Your task to perform on an android device: visit the assistant section in the google photos Image 0: 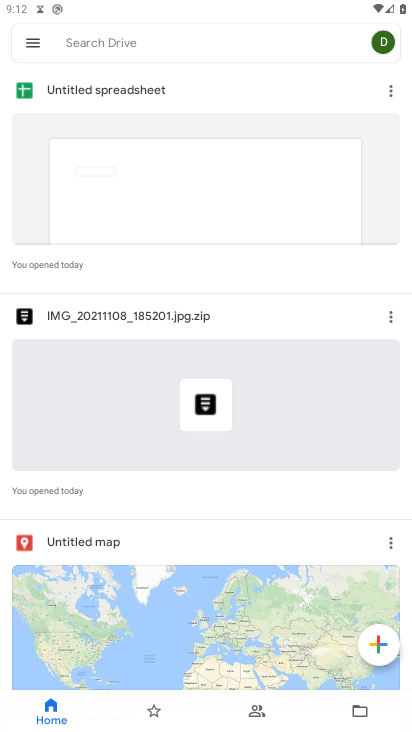
Step 0: press home button
Your task to perform on an android device: visit the assistant section in the google photos Image 1: 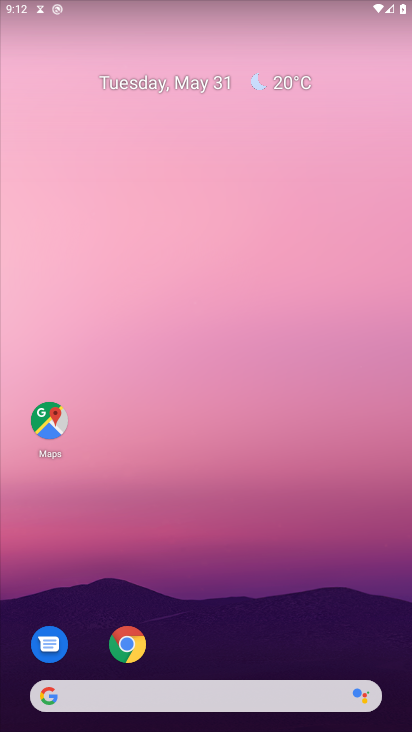
Step 1: drag from (228, 644) to (268, 84)
Your task to perform on an android device: visit the assistant section in the google photos Image 2: 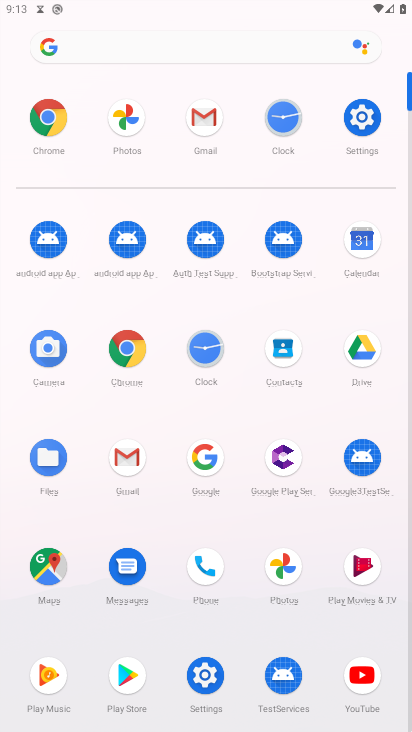
Step 2: click (282, 562)
Your task to perform on an android device: visit the assistant section in the google photos Image 3: 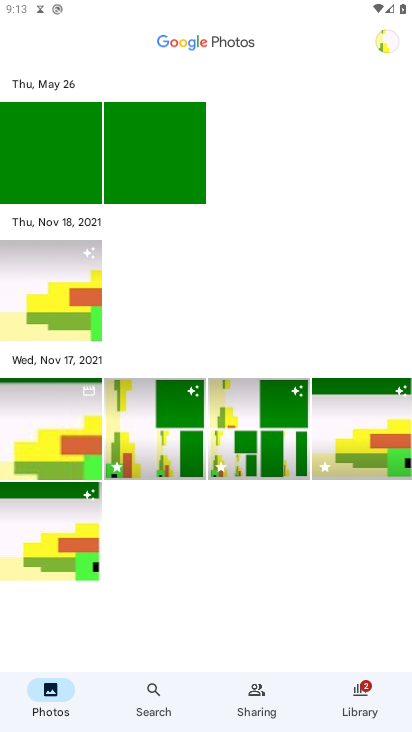
Step 3: click (157, 690)
Your task to perform on an android device: visit the assistant section in the google photos Image 4: 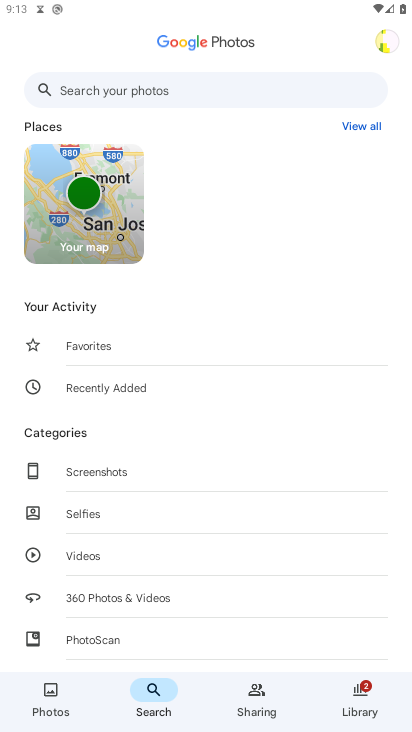
Step 4: click (132, 90)
Your task to perform on an android device: visit the assistant section in the google photos Image 5: 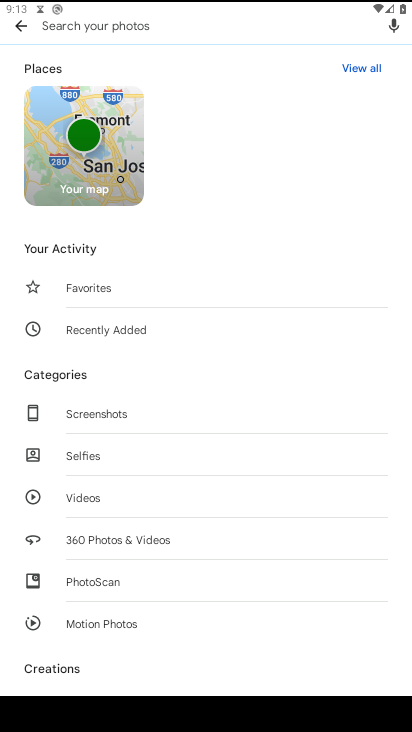
Step 5: type "assistant"
Your task to perform on an android device: visit the assistant section in the google photos Image 6: 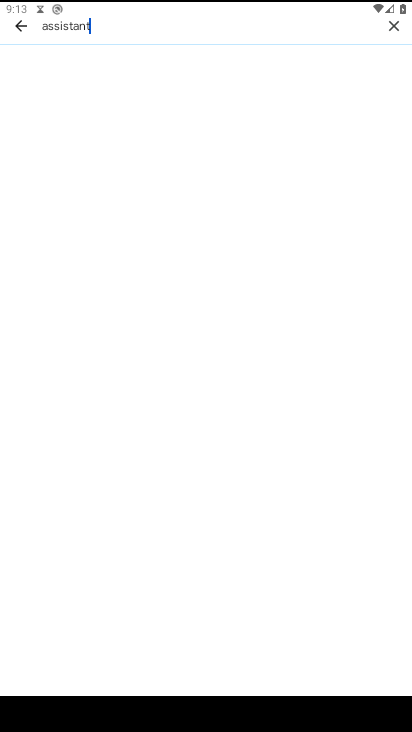
Step 6: task complete